Your task to perform on an android device: open app "Google News" (install if not already installed) Image 0: 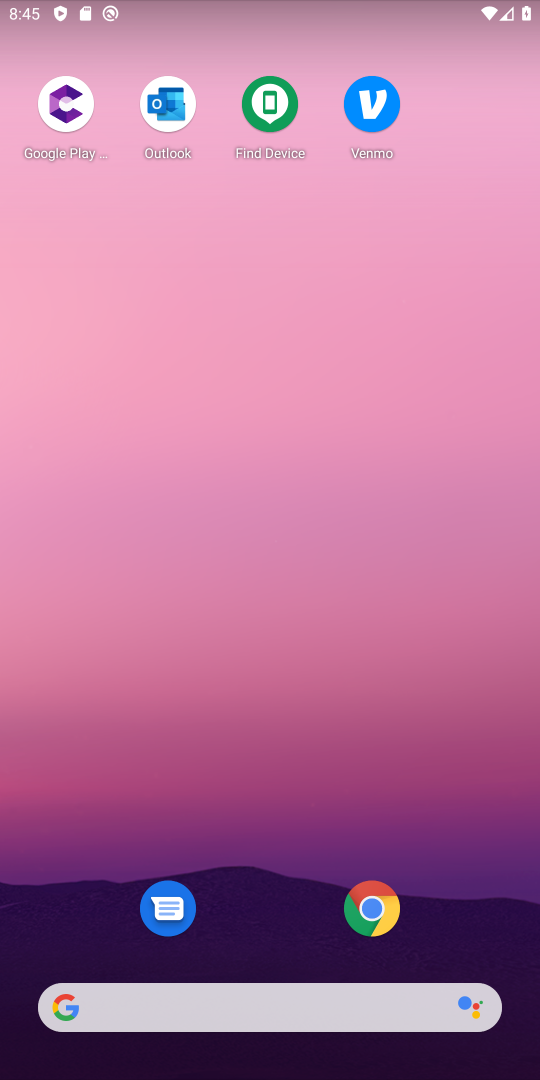
Step 0: drag from (275, 243) to (135, 13)
Your task to perform on an android device: open app "Google News" (install if not already installed) Image 1: 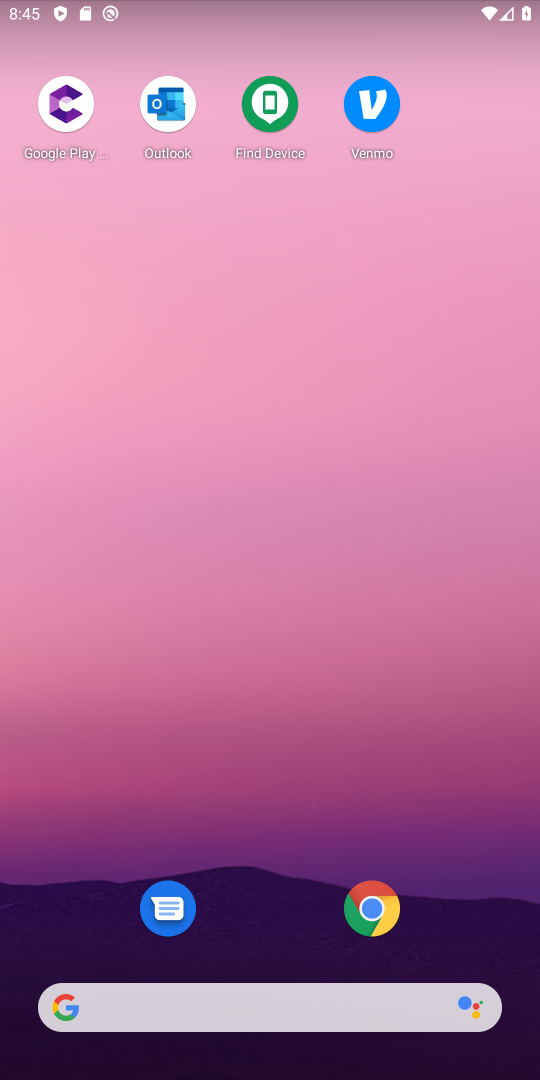
Step 1: drag from (292, 836) to (338, 18)
Your task to perform on an android device: open app "Google News" (install if not already installed) Image 2: 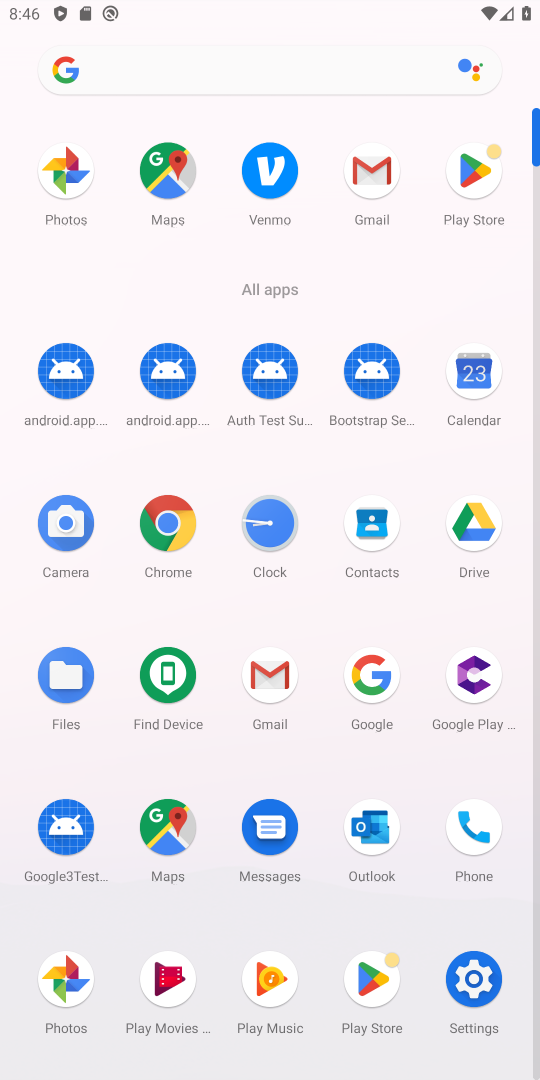
Step 2: click (488, 190)
Your task to perform on an android device: open app "Google News" (install if not already installed) Image 3: 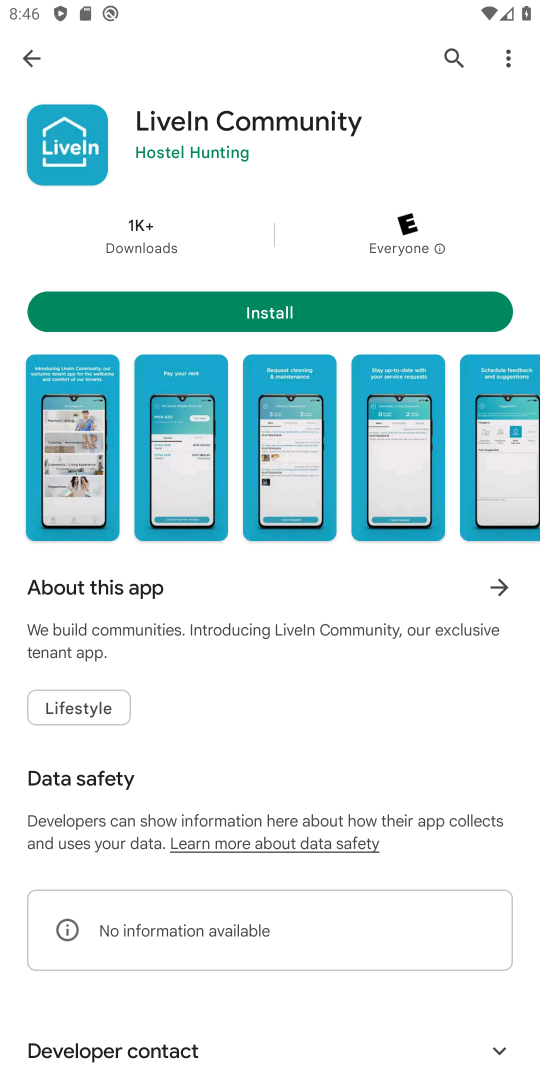
Step 3: click (32, 56)
Your task to perform on an android device: open app "Google News" (install if not already installed) Image 4: 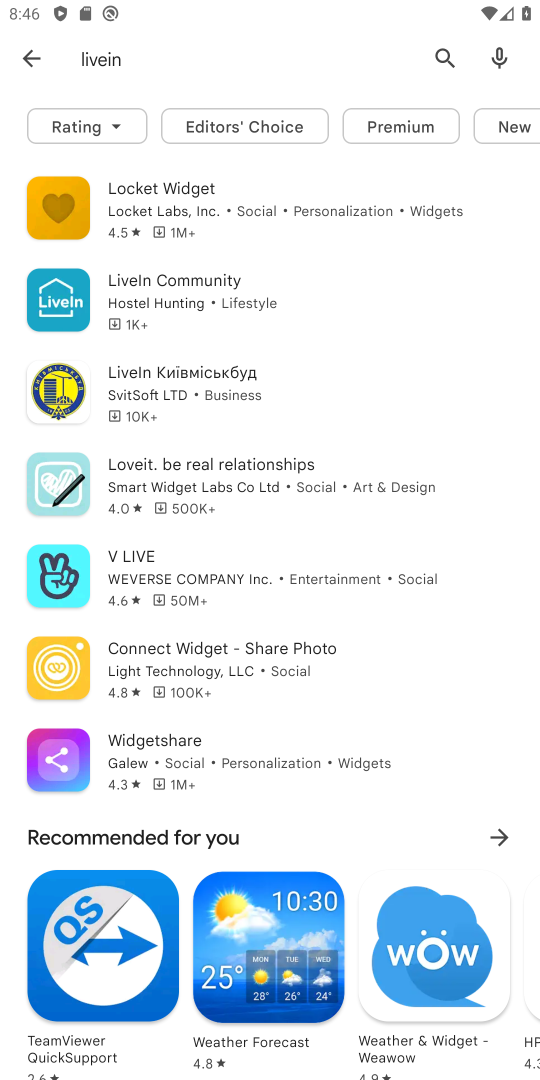
Step 4: click (224, 75)
Your task to perform on an android device: open app "Google News" (install if not already installed) Image 5: 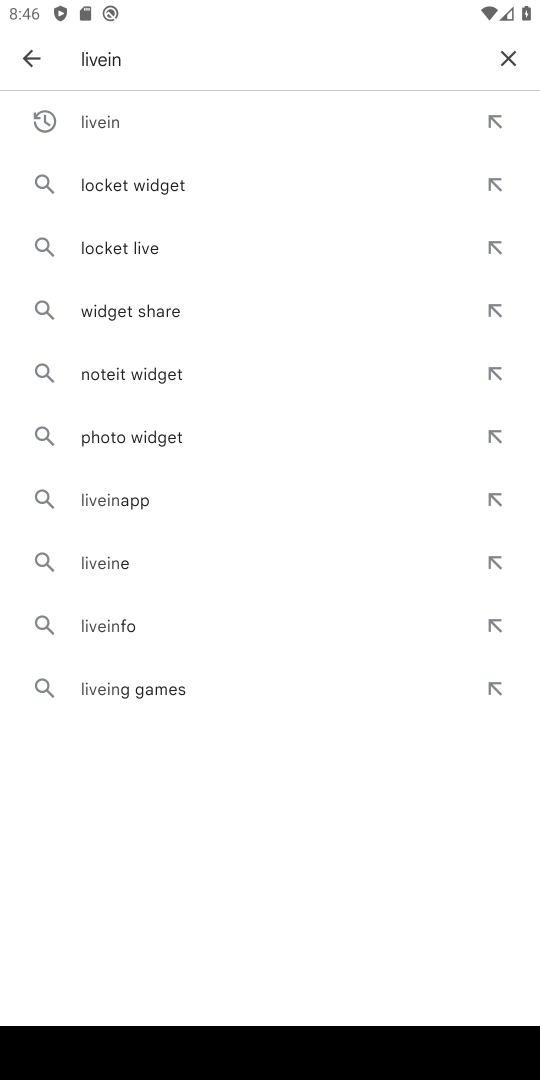
Step 5: click (509, 52)
Your task to perform on an android device: open app "Google News" (install if not already installed) Image 6: 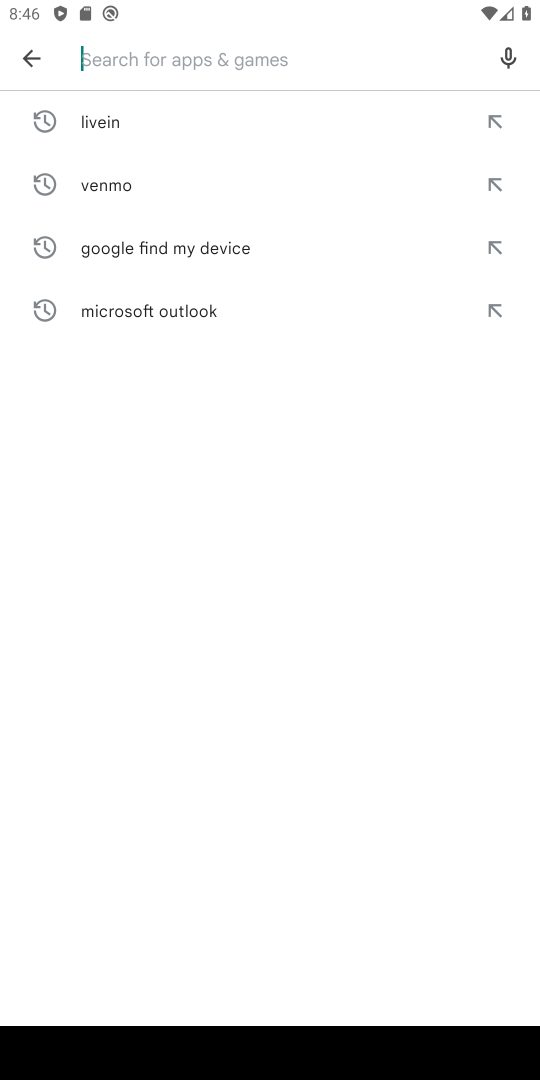
Step 6: type "google news"
Your task to perform on an android device: open app "Google News" (install if not already installed) Image 7: 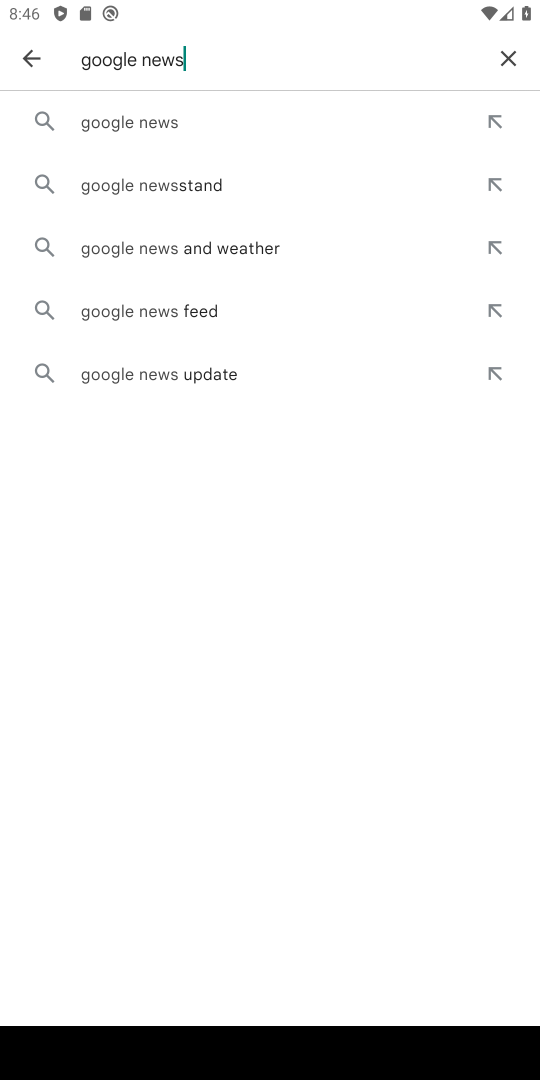
Step 7: click (160, 127)
Your task to perform on an android device: open app "Google News" (install if not already installed) Image 8: 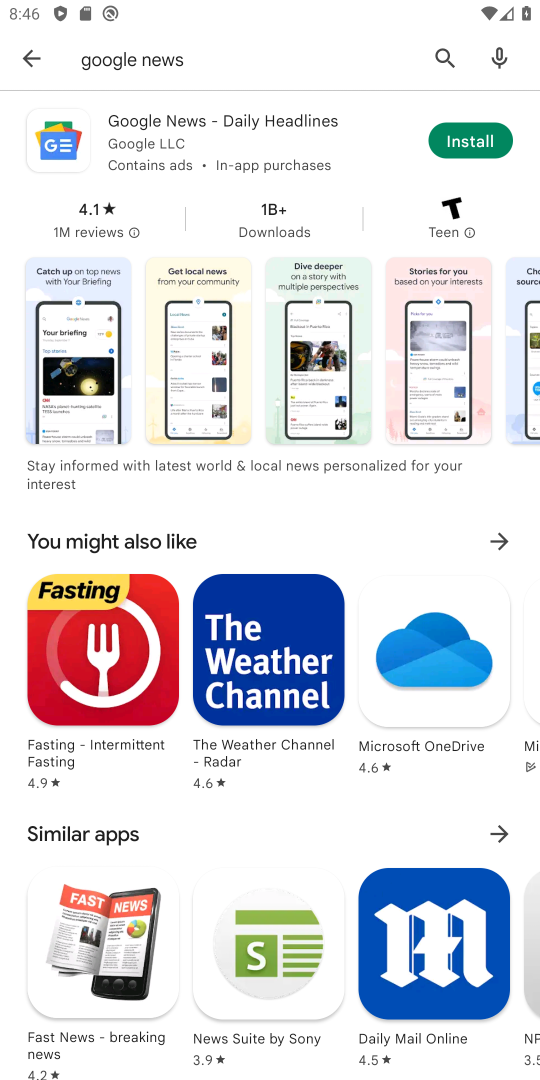
Step 8: click (481, 128)
Your task to perform on an android device: open app "Google News" (install if not already installed) Image 9: 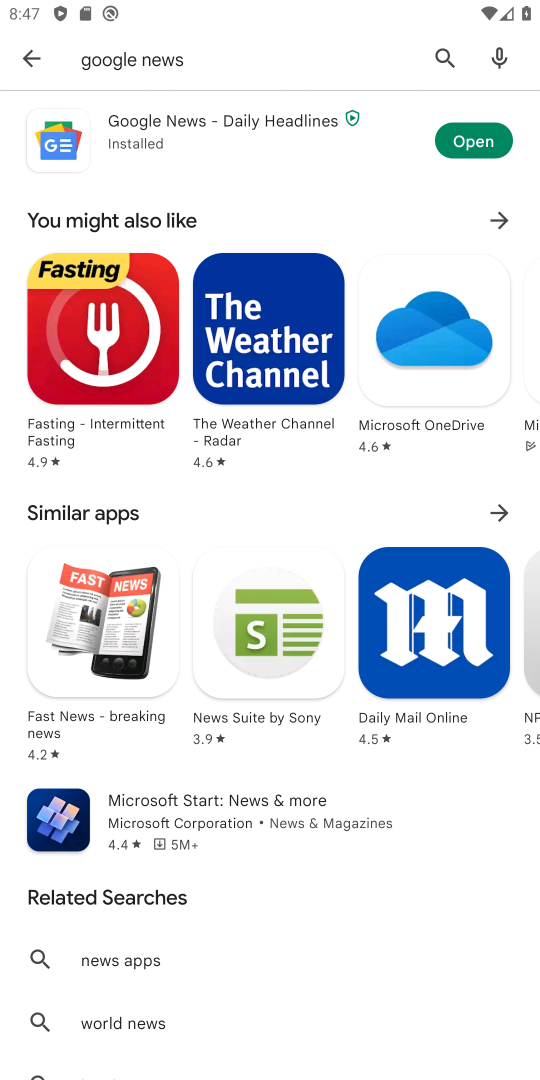
Step 9: click (454, 146)
Your task to perform on an android device: open app "Google News" (install if not already installed) Image 10: 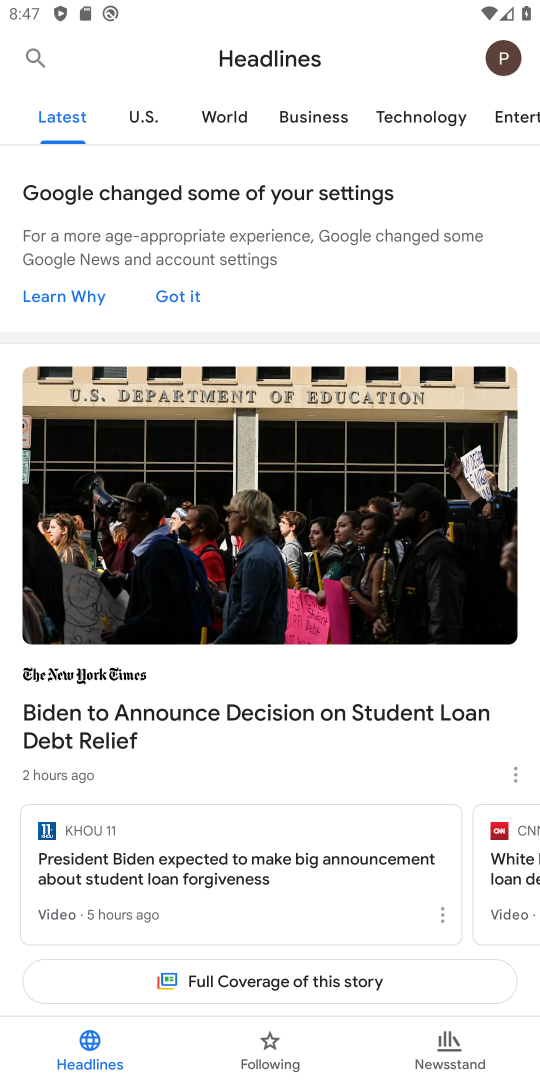
Step 10: task complete